Your task to perform on an android device: open a new tab in the chrome app Image 0: 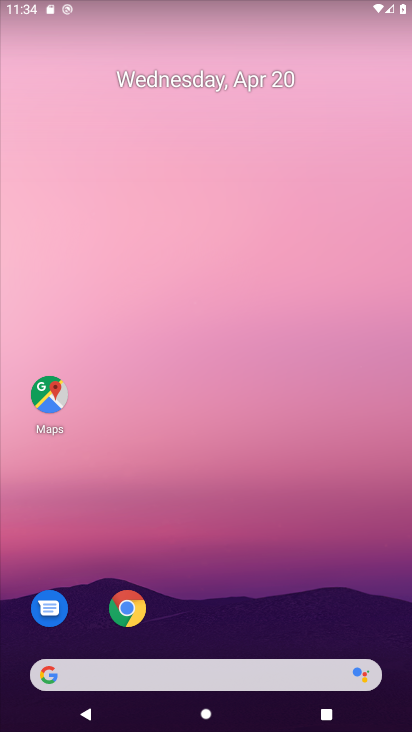
Step 0: click (127, 617)
Your task to perform on an android device: open a new tab in the chrome app Image 1: 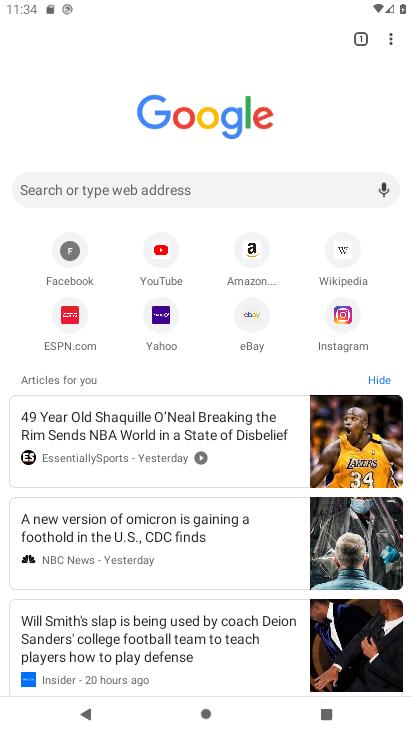
Step 1: drag from (222, 29) to (216, 131)
Your task to perform on an android device: open a new tab in the chrome app Image 2: 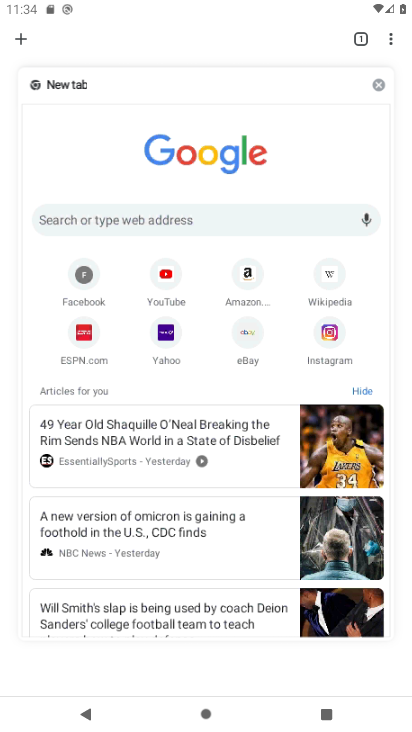
Step 2: click (13, 39)
Your task to perform on an android device: open a new tab in the chrome app Image 3: 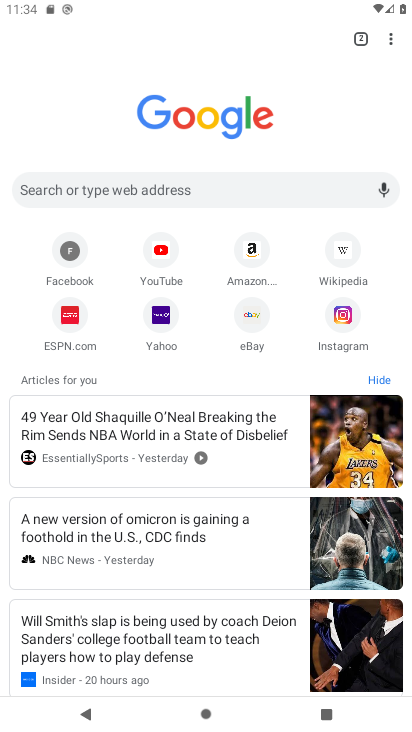
Step 3: task complete